Your task to perform on an android device: Go to ESPN.com Image 0: 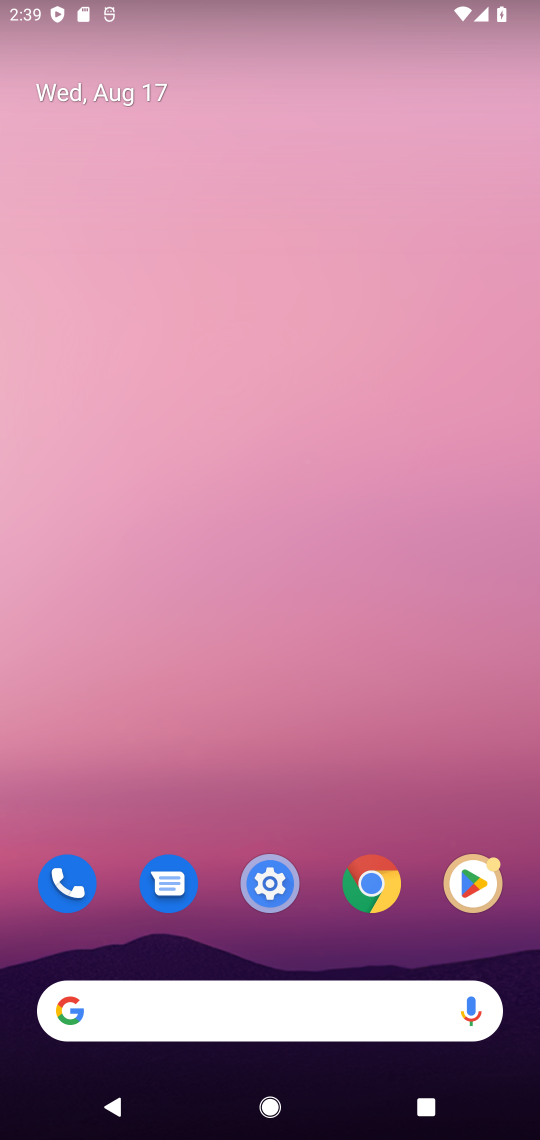
Step 0: drag from (271, 782) to (221, 16)
Your task to perform on an android device: Go to ESPN.com Image 1: 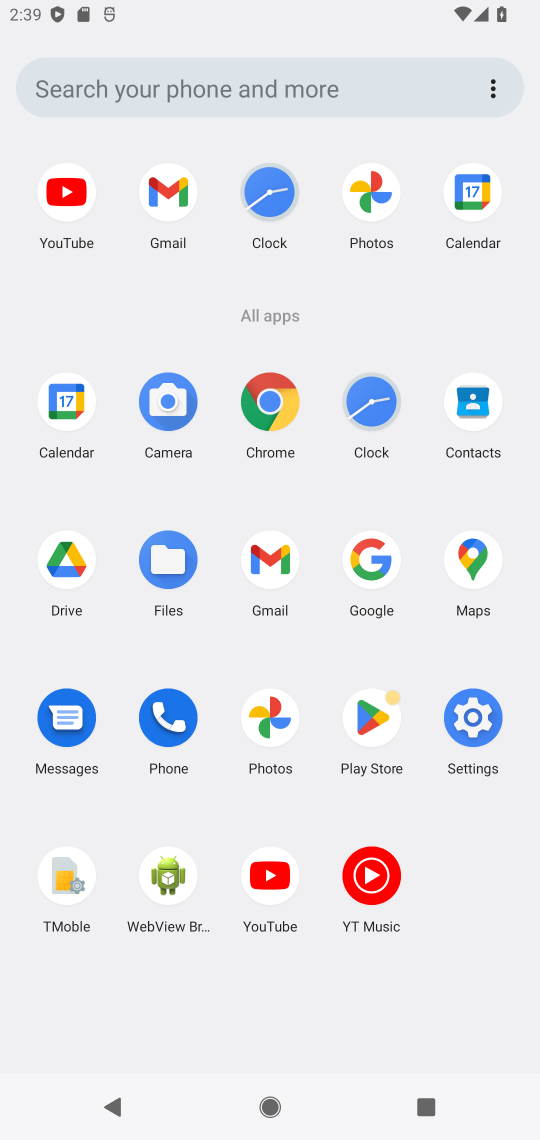
Step 1: click (275, 405)
Your task to perform on an android device: Go to ESPN.com Image 2: 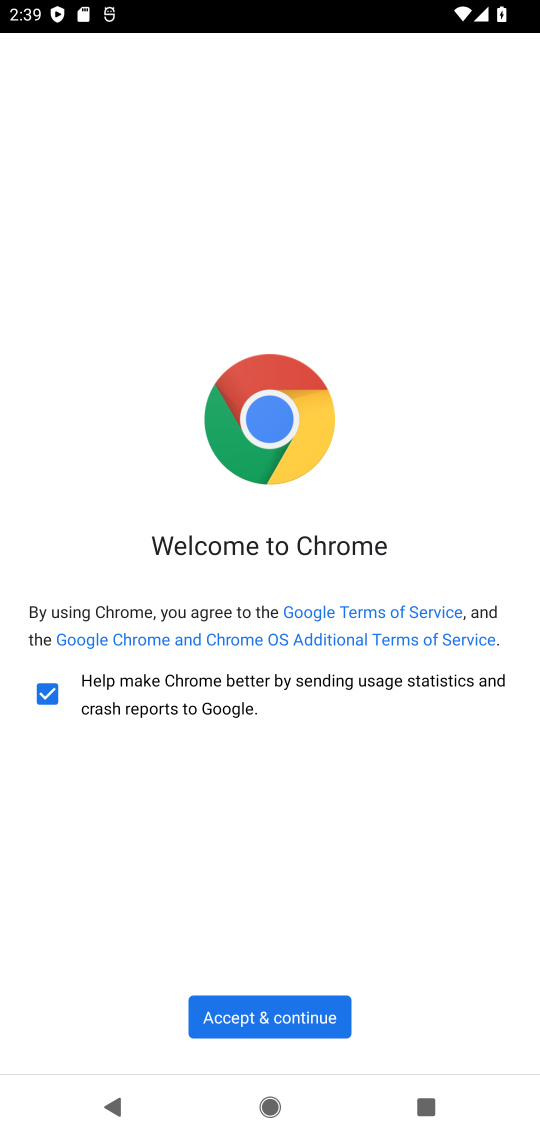
Step 2: click (302, 1018)
Your task to perform on an android device: Go to ESPN.com Image 3: 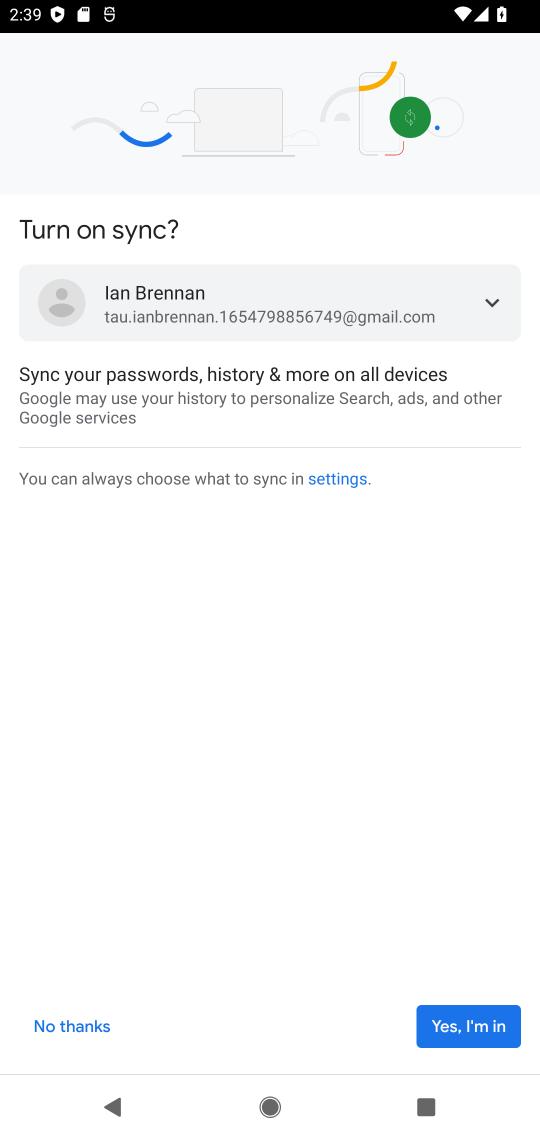
Step 3: click (437, 1020)
Your task to perform on an android device: Go to ESPN.com Image 4: 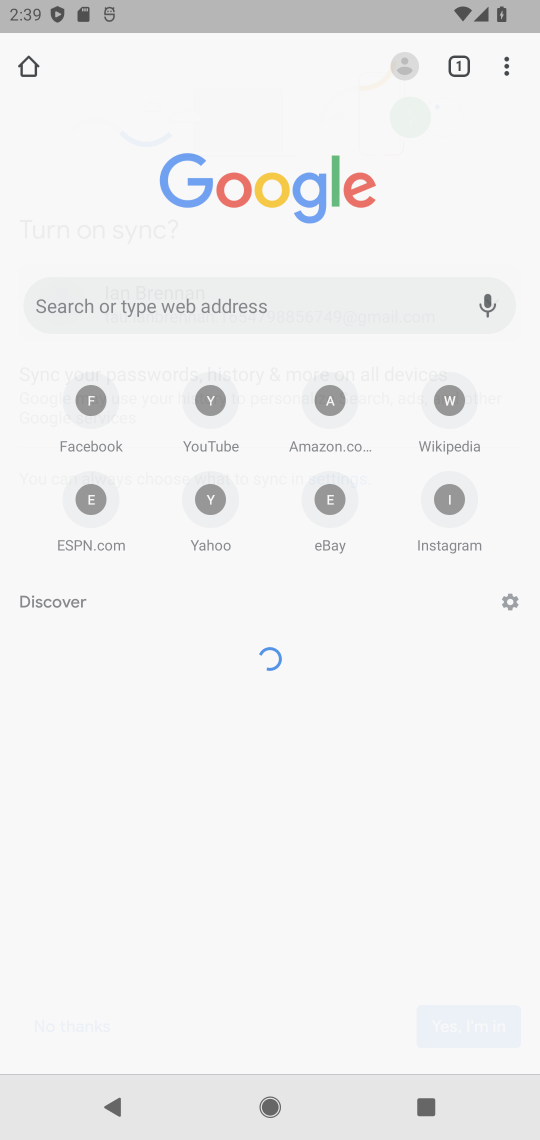
Step 4: click (509, 1029)
Your task to perform on an android device: Go to ESPN.com Image 5: 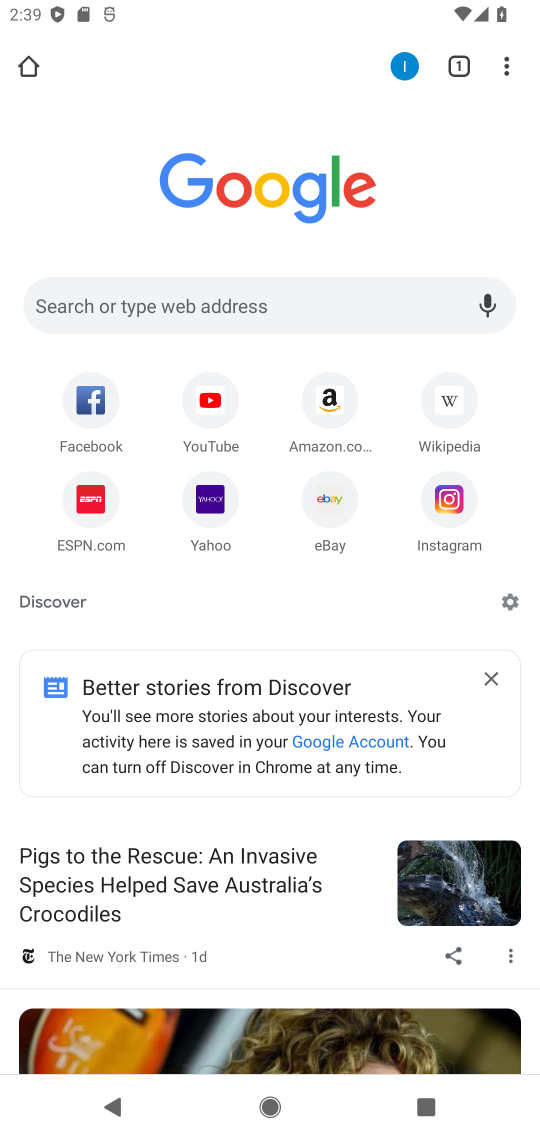
Step 5: click (87, 501)
Your task to perform on an android device: Go to ESPN.com Image 6: 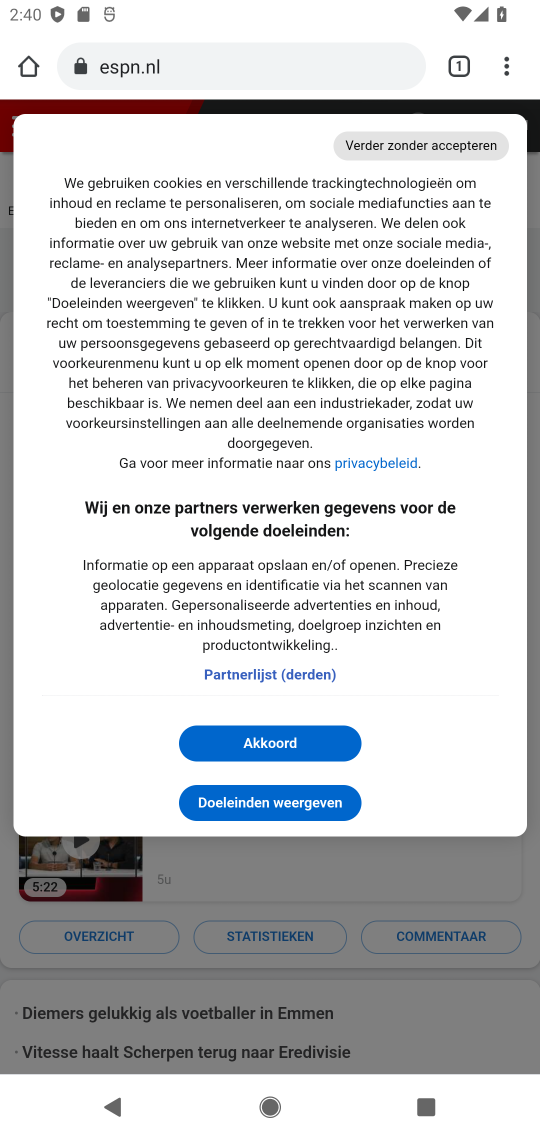
Step 6: task complete